Your task to perform on an android device: turn on javascript in the chrome app Image 0: 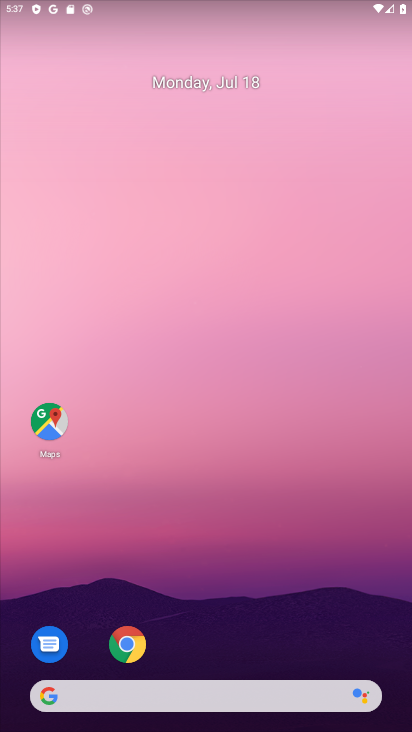
Step 0: press home button
Your task to perform on an android device: turn on javascript in the chrome app Image 1: 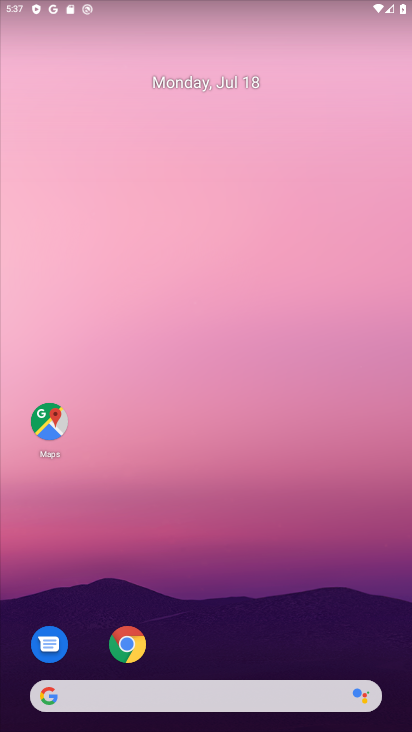
Step 1: click (121, 644)
Your task to perform on an android device: turn on javascript in the chrome app Image 2: 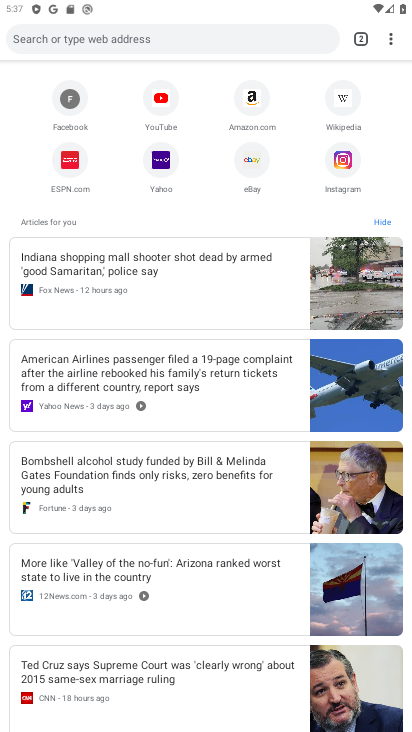
Step 2: drag from (390, 38) to (264, 326)
Your task to perform on an android device: turn on javascript in the chrome app Image 3: 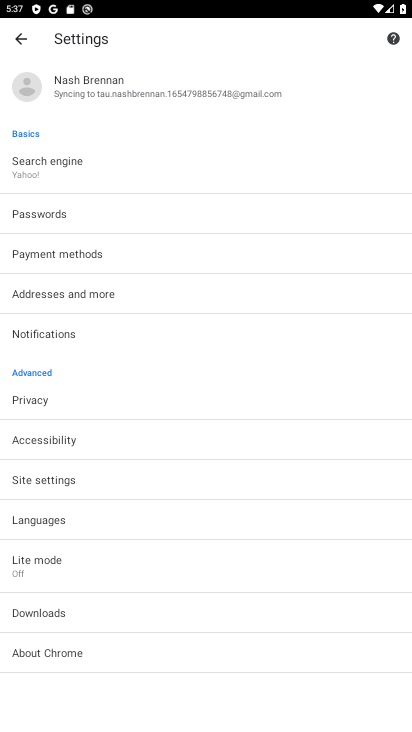
Step 3: click (46, 481)
Your task to perform on an android device: turn on javascript in the chrome app Image 4: 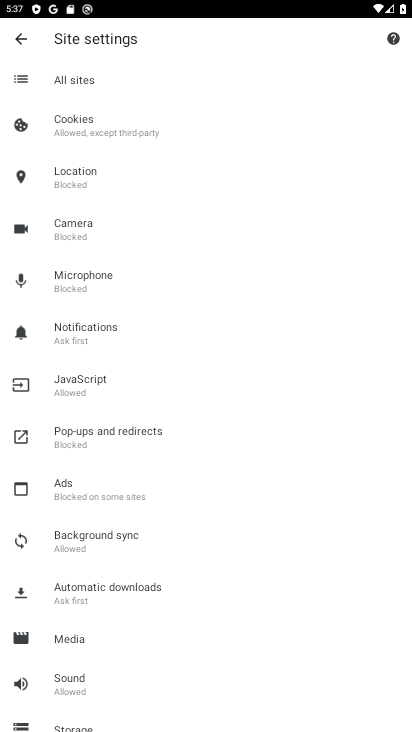
Step 4: click (88, 388)
Your task to perform on an android device: turn on javascript in the chrome app Image 5: 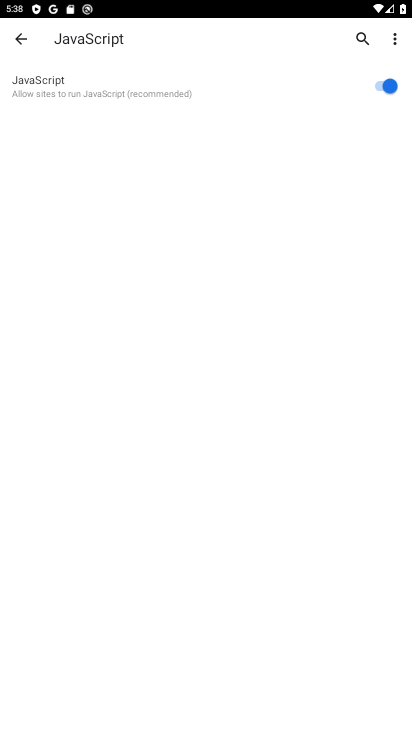
Step 5: task complete